Your task to perform on an android device: Open the web browser Image 0: 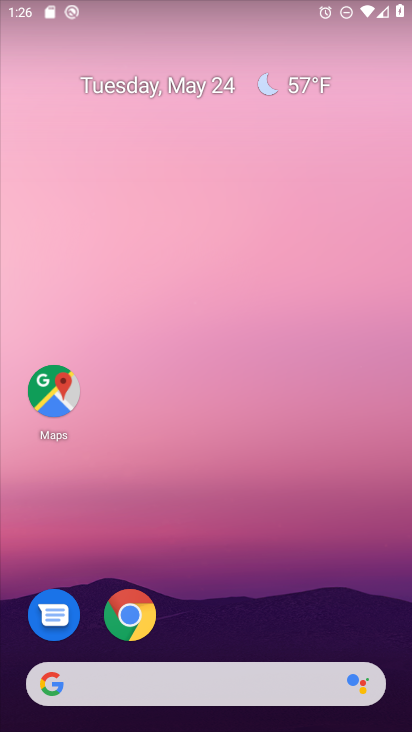
Step 0: click (130, 617)
Your task to perform on an android device: Open the web browser Image 1: 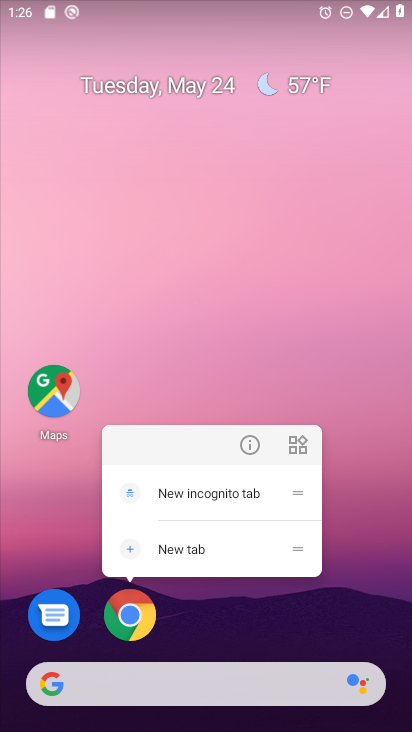
Step 1: click (135, 614)
Your task to perform on an android device: Open the web browser Image 2: 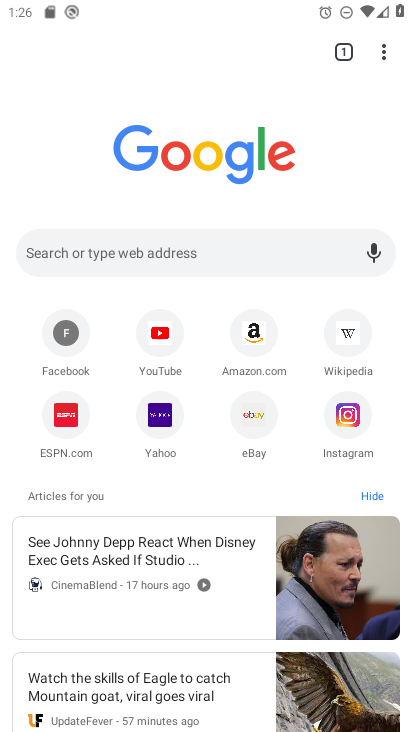
Step 2: task complete